Your task to perform on an android device: clear history in the chrome app Image 0: 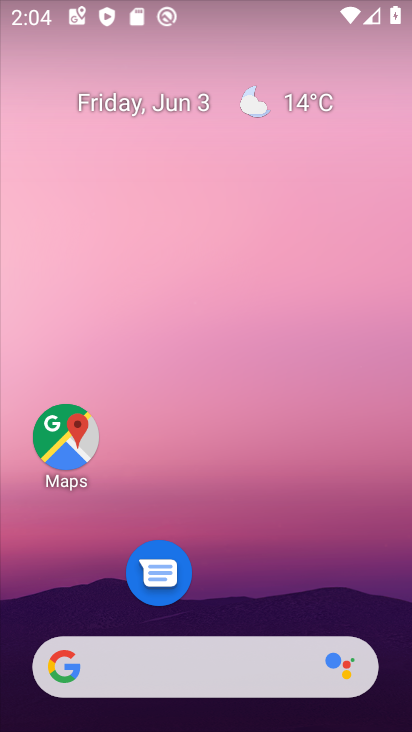
Step 0: drag from (299, 644) to (352, 259)
Your task to perform on an android device: clear history in the chrome app Image 1: 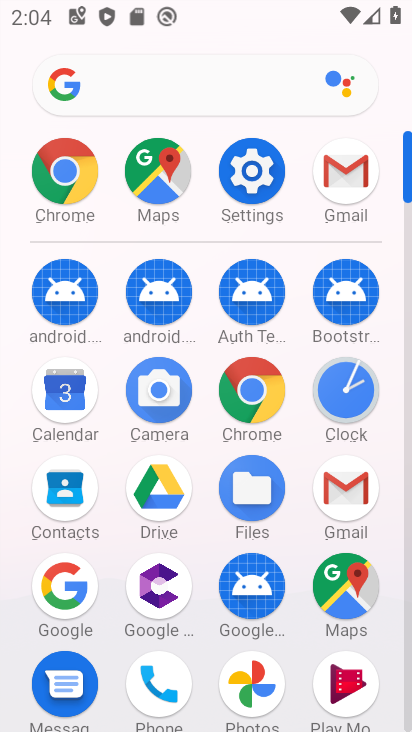
Step 1: click (263, 404)
Your task to perform on an android device: clear history in the chrome app Image 2: 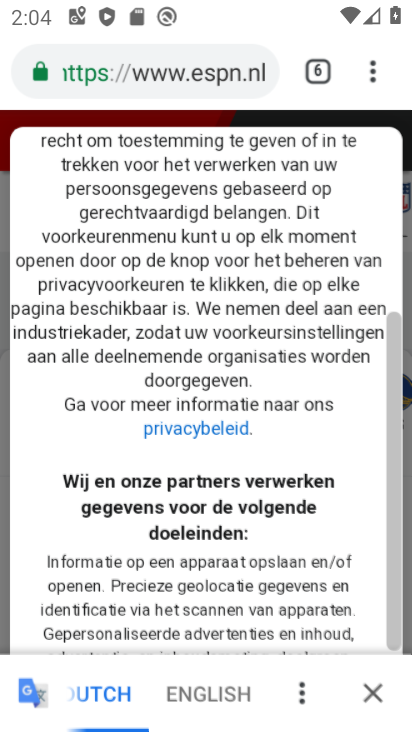
Step 2: click (372, 68)
Your task to perform on an android device: clear history in the chrome app Image 3: 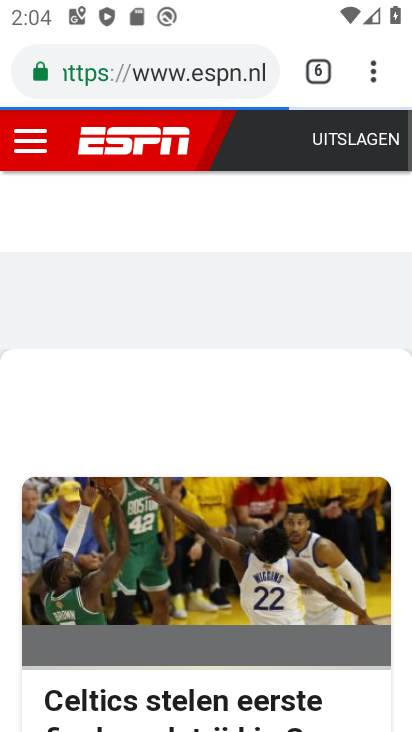
Step 3: drag from (373, 67) to (196, 403)
Your task to perform on an android device: clear history in the chrome app Image 4: 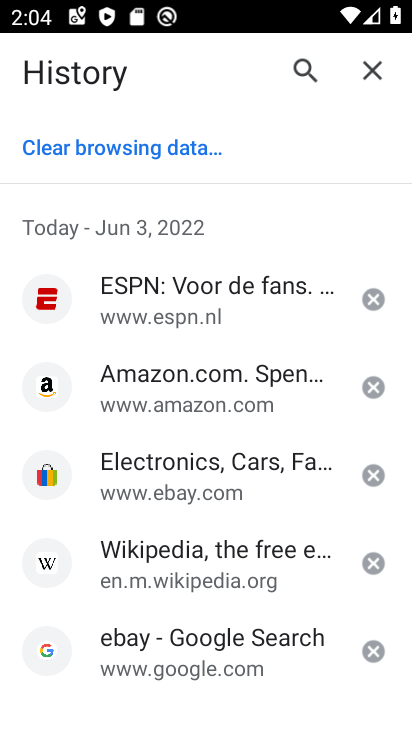
Step 4: click (163, 147)
Your task to perform on an android device: clear history in the chrome app Image 5: 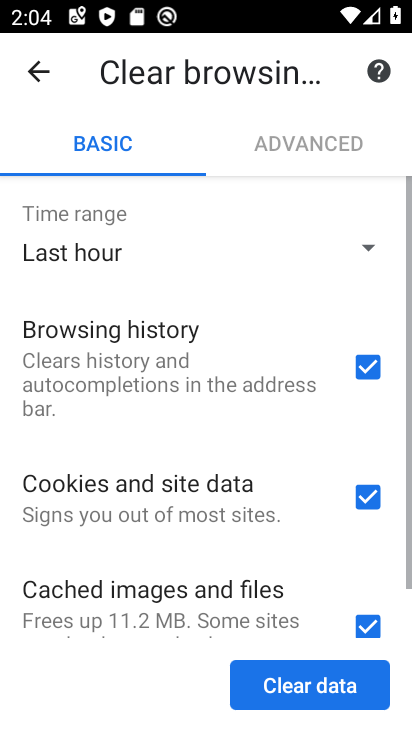
Step 5: click (279, 691)
Your task to perform on an android device: clear history in the chrome app Image 6: 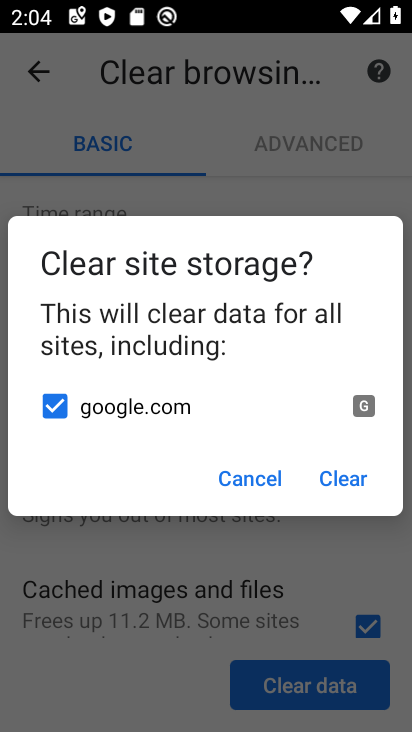
Step 6: click (351, 480)
Your task to perform on an android device: clear history in the chrome app Image 7: 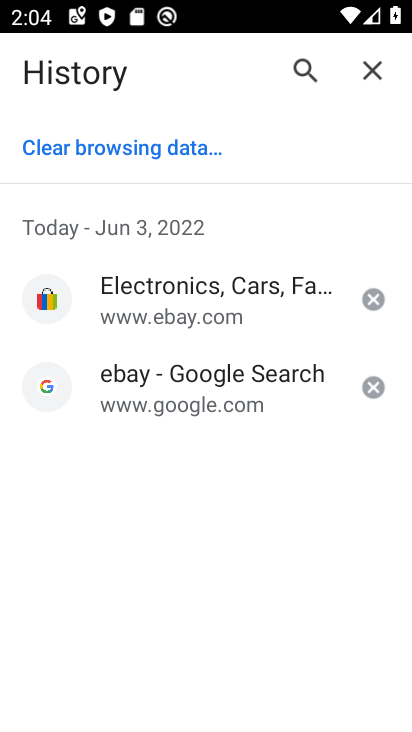
Step 7: click (375, 299)
Your task to perform on an android device: clear history in the chrome app Image 8: 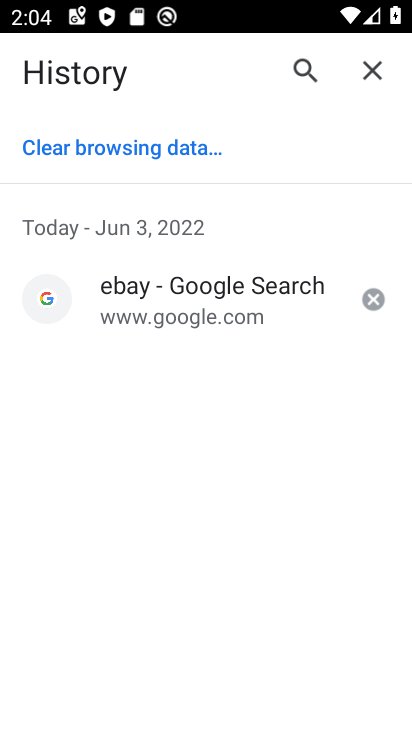
Step 8: click (375, 293)
Your task to perform on an android device: clear history in the chrome app Image 9: 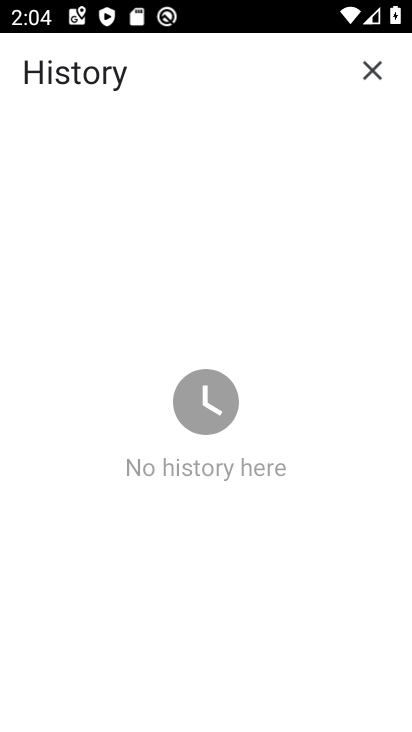
Step 9: task complete